Your task to perform on an android device: clear history in the chrome app Image 0: 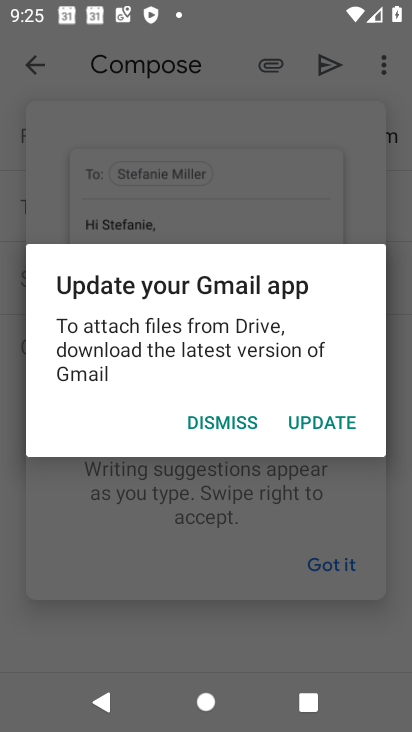
Step 0: press home button
Your task to perform on an android device: clear history in the chrome app Image 1: 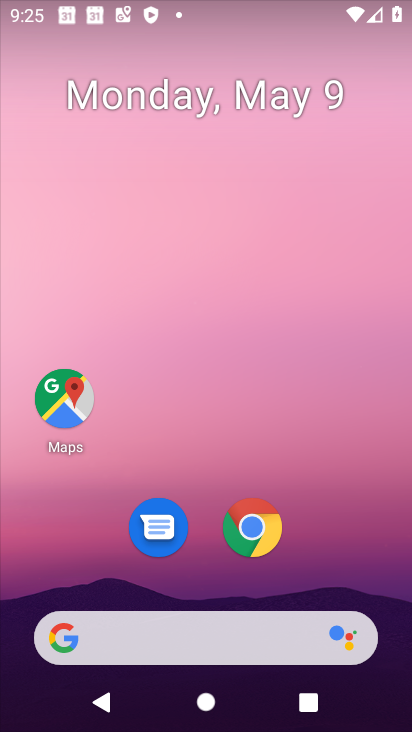
Step 1: click (244, 523)
Your task to perform on an android device: clear history in the chrome app Image 2: 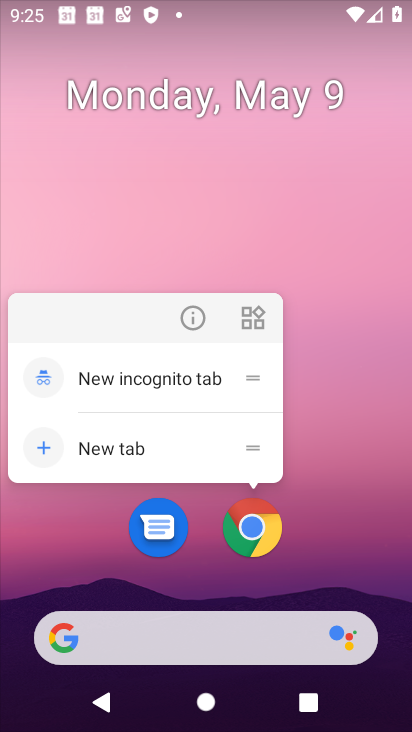
Step 2: click (249, 524)
Your task to perform on an android device: clear history in the chrome app Image 3: 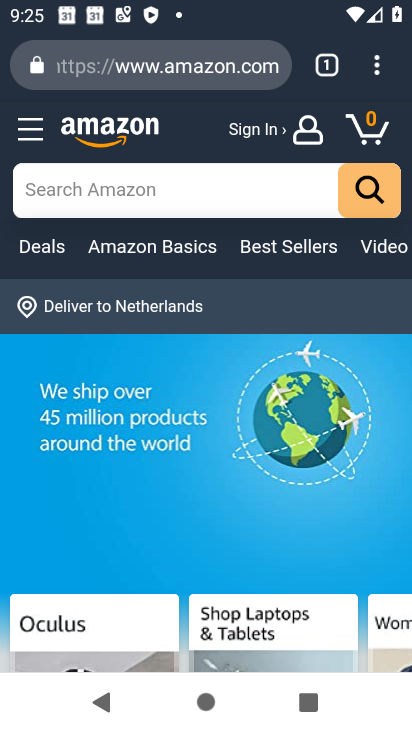
Step 3: click (382, 68)
Your task to perform on an android device: clear history in the chrome app Image 4: 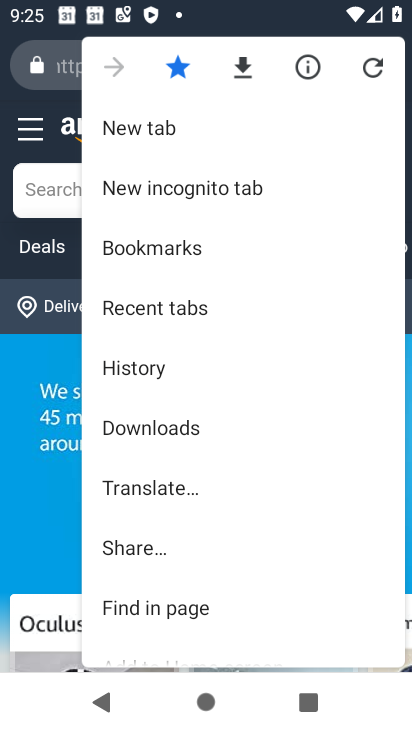
Step 4: click (159, 369)
Your task to perform on an android device: clear history in the chrome app Image 5: 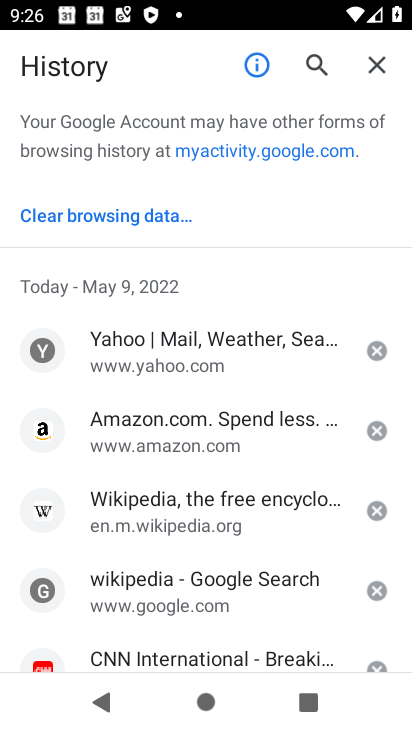
Step 5: click (146, 220)
Your task to perform on an android device: clear history in the chrome app Image 6: 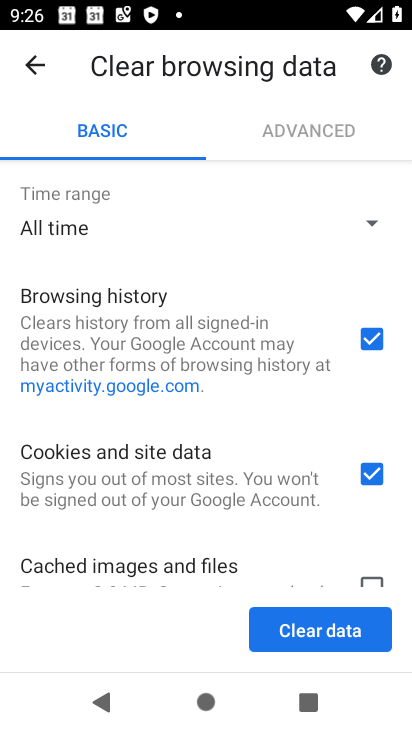
Step 6: click (377, 577)
Your task to perform on an android device: clear history in the chrome app Image 7: 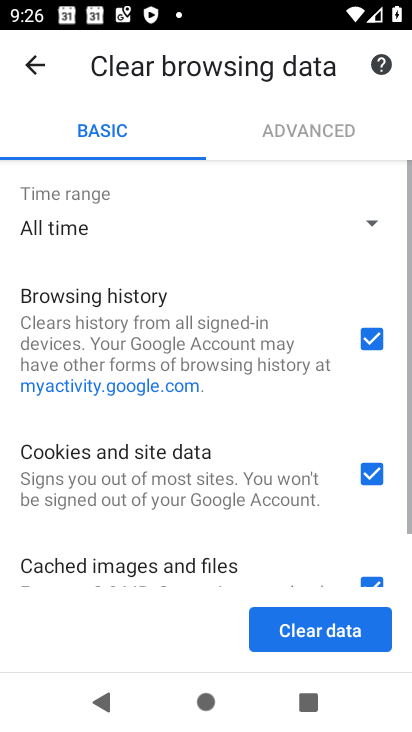
Step 7: click (358, 631)
Your task to perform on an android device: clear history in the chrome app Image 8: 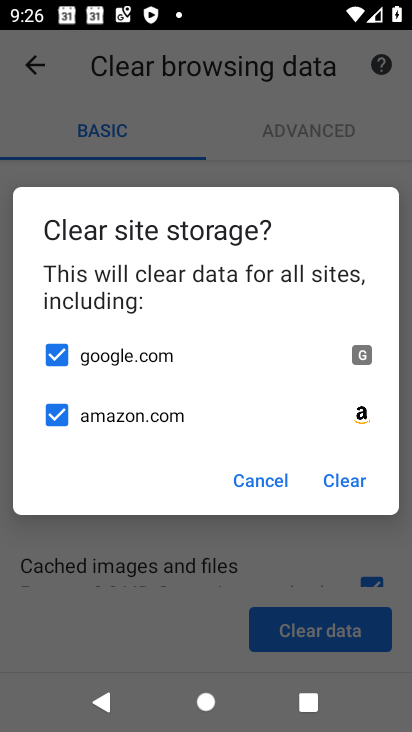
Step 8: click (346, 481)
Your task to perform on an android device: clear history in the chrome app Image 9: 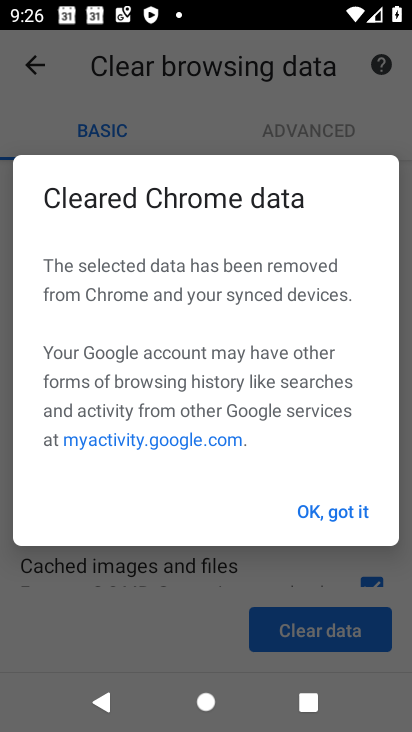
Step 9: click (344, 515)
Your task to perform on an android device: clear history in the chrome app Image 10: 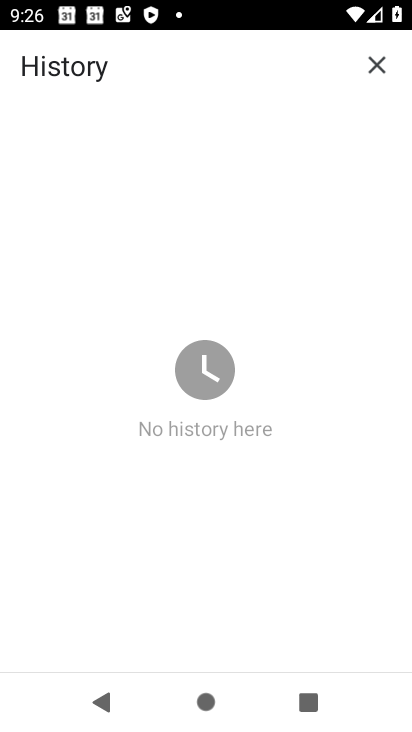
Step 10: task complete